Your task to perform on an android device: delete browsing data in the chrome app Image 0: 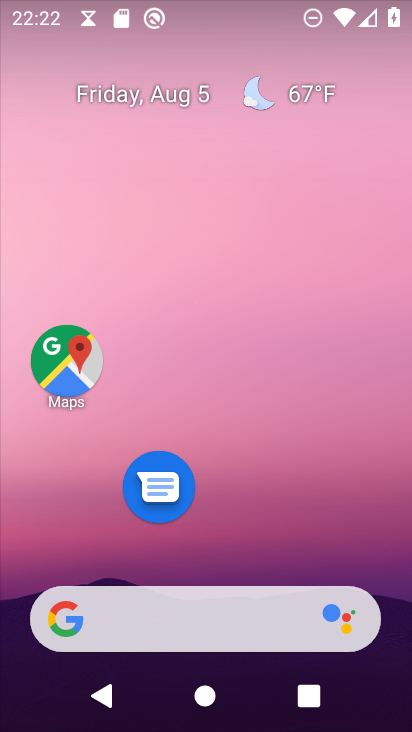
Step 0: drag from (220, 618) to (300, 42)
Your task to perform on an android device: delete browsing data in the chrome app Image 1: 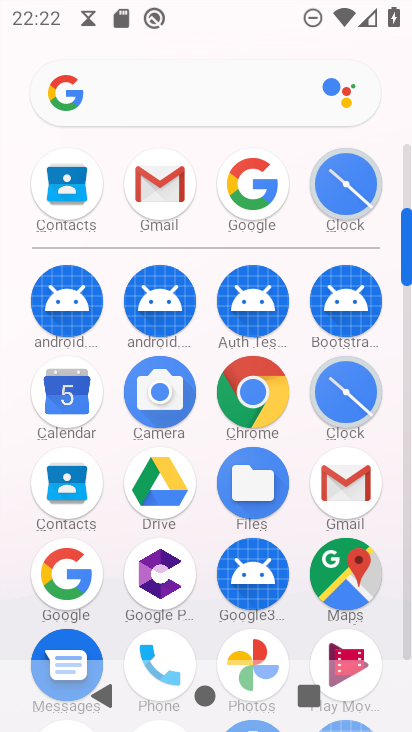
Step 1: drag from (258, 391) to (315, 467)
Your task to perform on an android device: delete browsing data in the chrome app Image 2: 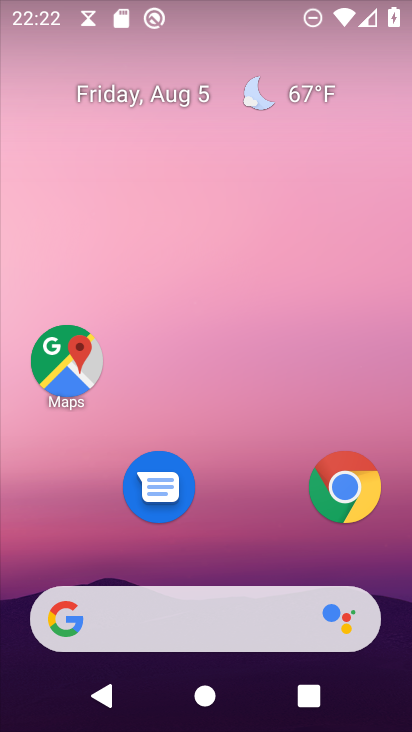
Step 2: click (347, 482)
Your task to perform on an android device: delete browsing data in the chrome app Image 3: 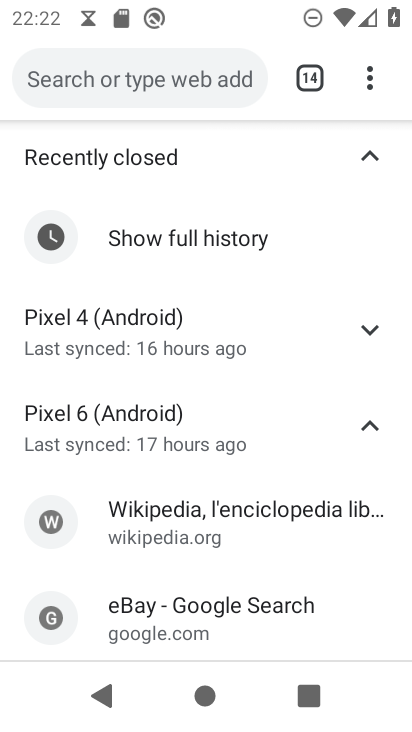
Step 3: drag from (368, 74) to (229, 562)
Your task to perform on an android device: delete browsing data in the chrome app Image 4: 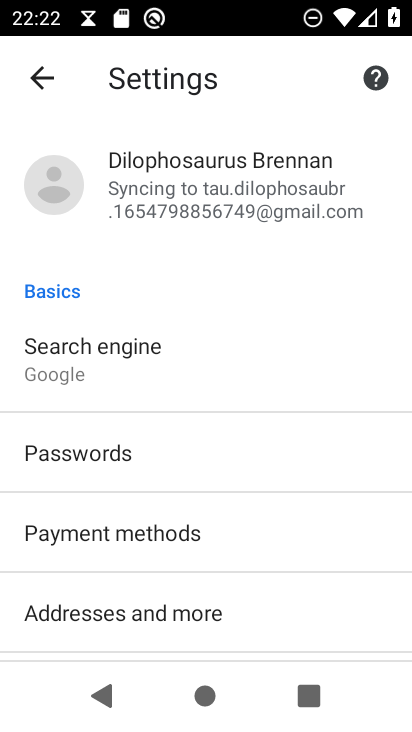
Step 4: drag from (222, 589) to (304, 193)
Your task to perform on an android device: delete browsing data in the chrome app Image 5: 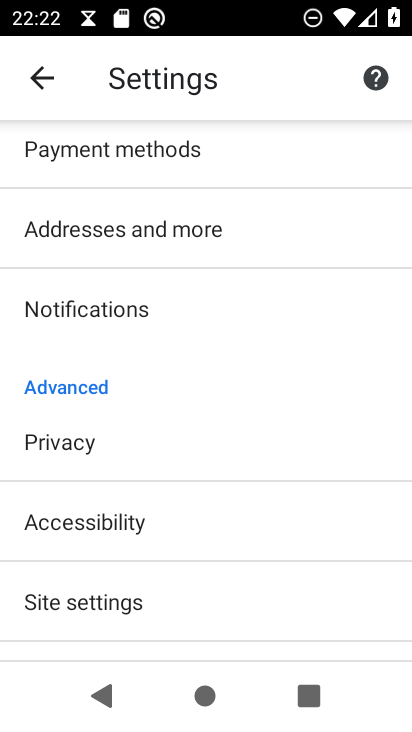
Step 5: click (74, 445)
Your task to perform on an android device: delete browsing data in the chrome app Image 6: 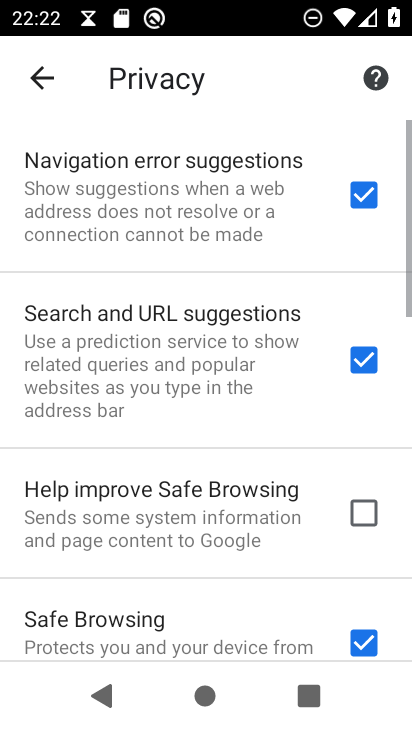
Step 6: drag from (193, 608) to (262, 39)
Your task to perform on an android device: delete browsing data in the chrome app Image 7: 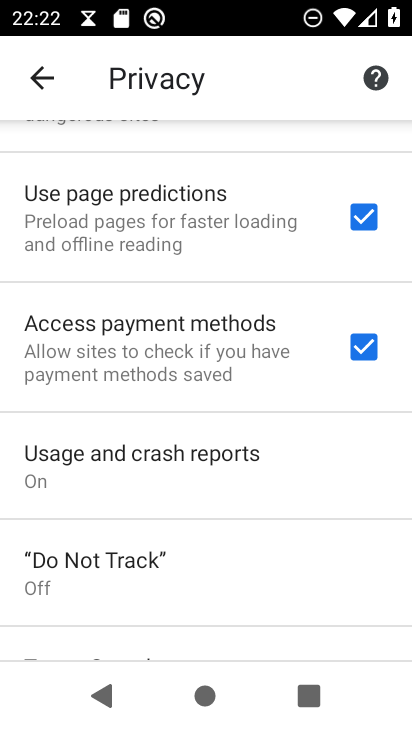
Step 7: drag from (221, 544) to (327, 104)
Your task to perform on an android device: delete browsing data in the chrome app Image 8: 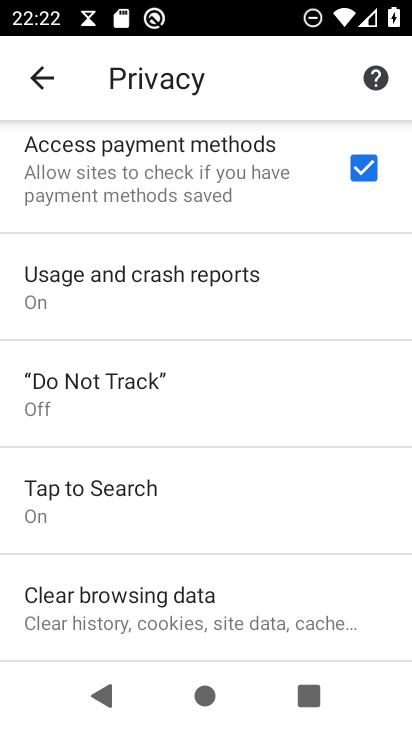
Step 8: click (180, 609)
Your task to perform on an android device: delete browsing data in the chrome app Image 9: 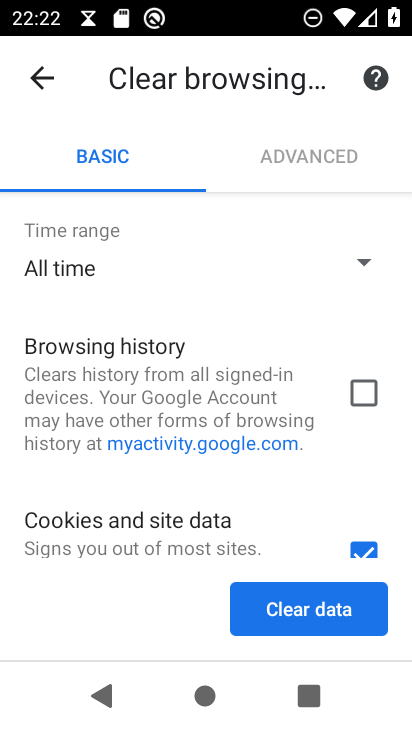
Step 9: click (361, 392)
Your task to perform on an android device: delete browsing data in the chrome app Image 10: 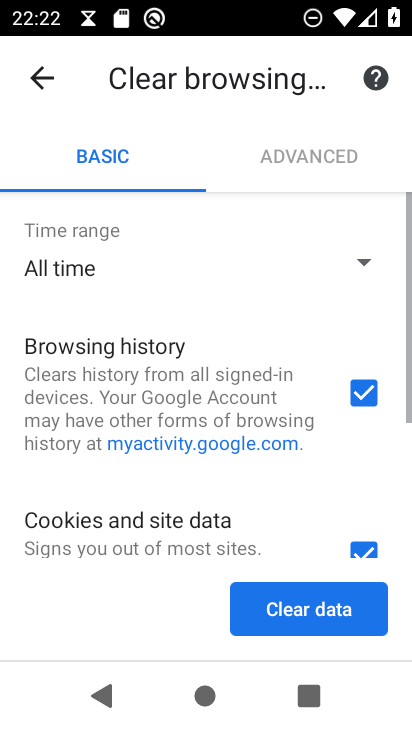
Step 10: drag from (264, 521) to (269, 176)
Your task to perform on an android device: delete browsing data in the chrome app Image 11: 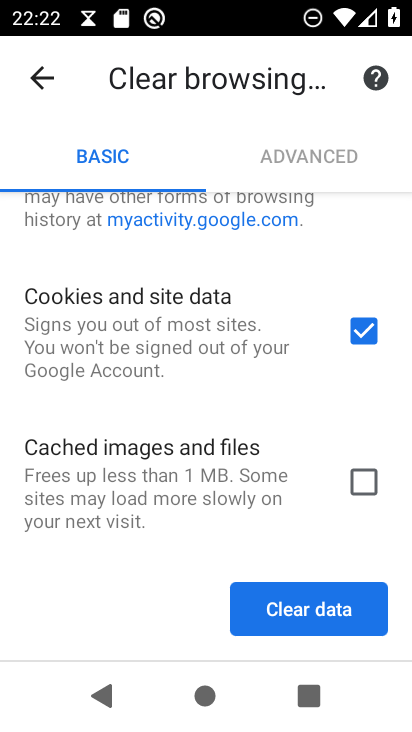
Step 11: click (360, 480)
Your task to perform on an android device: delete browsing data in the chrome app Image 12: 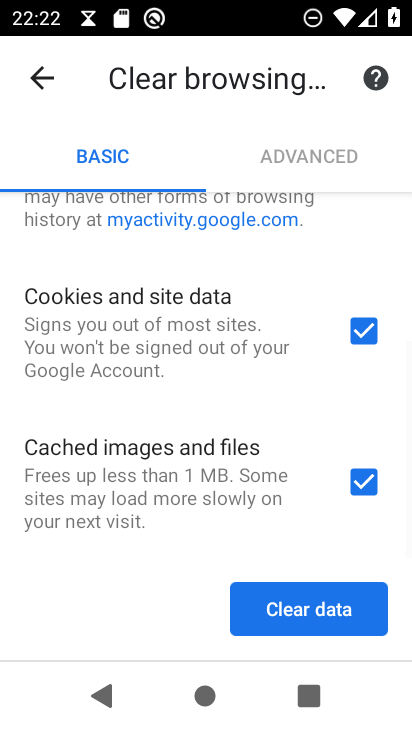
Step 12: click (329, 607)
Your task to perform on an android device: delete browsing data in the chrome app Image 13: 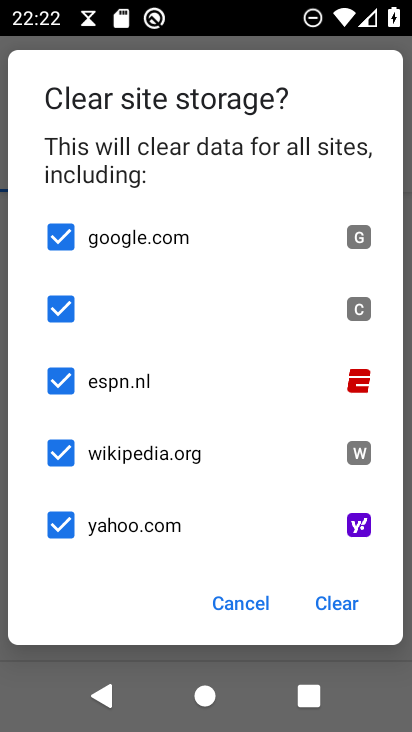
Step 13: click (328, 603)
Your task to perform on an android device: delete browsing data in the chrome app Image 14: 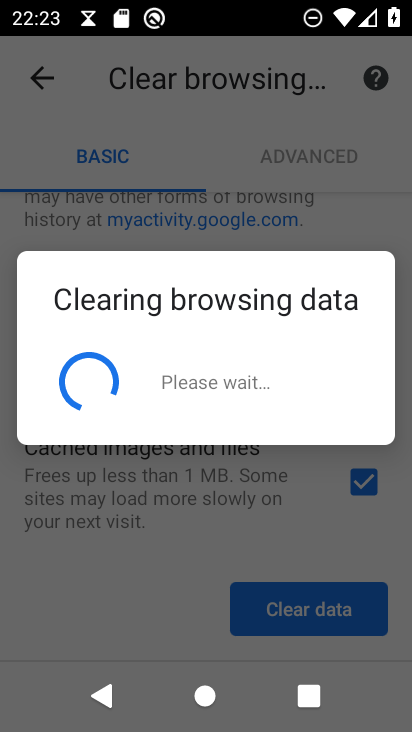
Step 14: task complete